Your task to perform on an android device: turn off location Image 0: 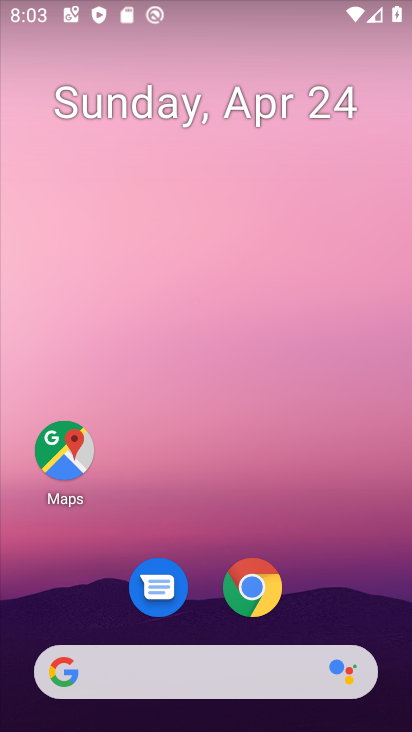
Step 0: drag from (359, 518) to (239, 4)
Your task to perform on an android device: turn off location Image 1: 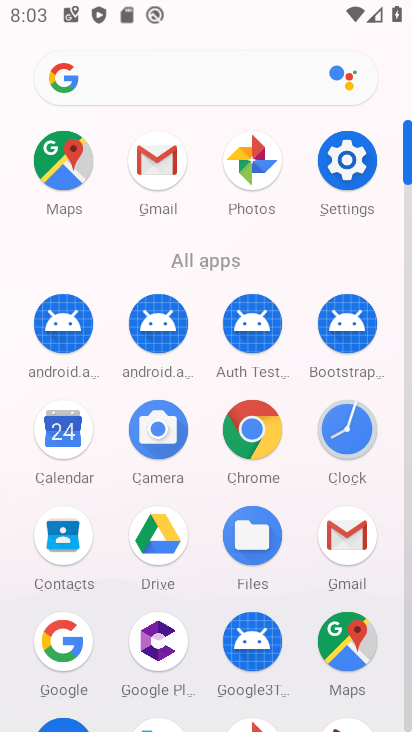
Step 1: click (340, 207)
Your task to perform on an android device: turn off location Image 2: 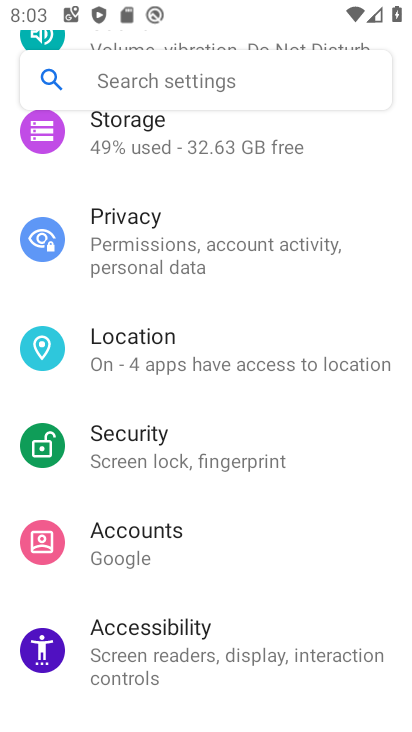
Step 2: click (150, 366)
Your task to perform on an android device: turn off location Image 3: 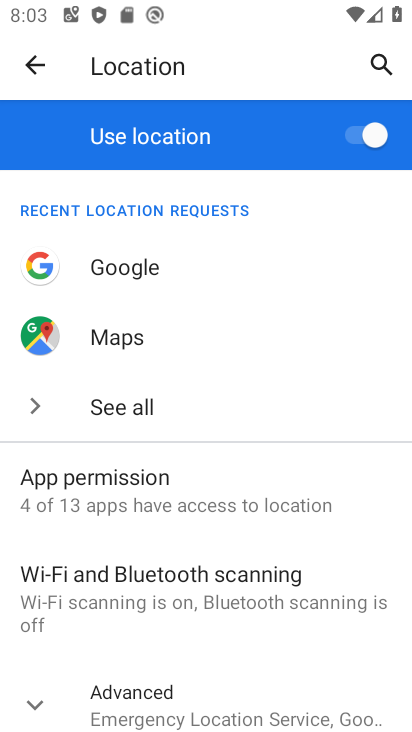
Step 3: click (369, 131)
Your task to perform on an android device: turn off location Image 4: 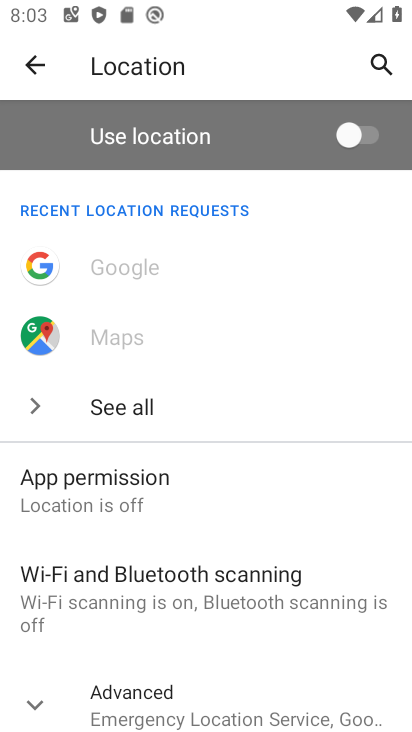
Step 4: task complete